Your task to perform on an android device: toggle wifi Image 0: 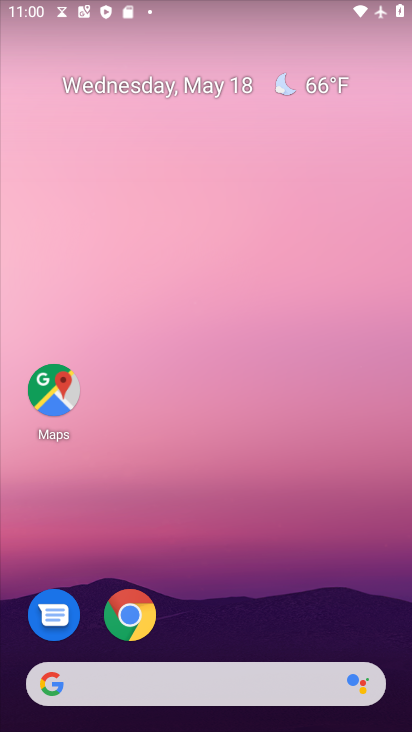
Step 0: drag from (268, 557) to (239, 16)
Your task to perform on an android device: toggle wifi Image 1: 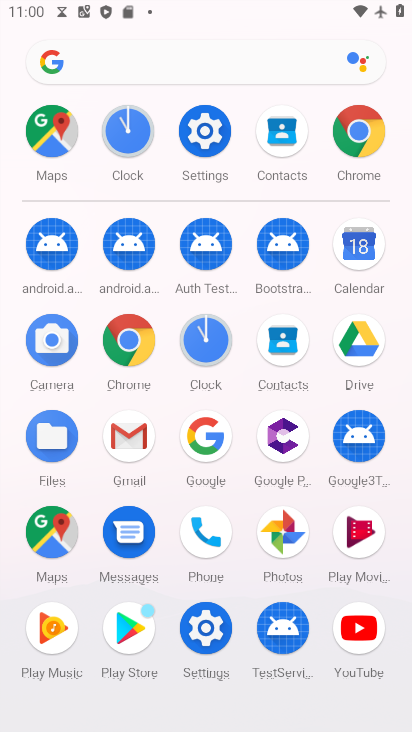
Step 1: click (204, 624)
Your task to perform on an android device: toggle wifi Image 2: 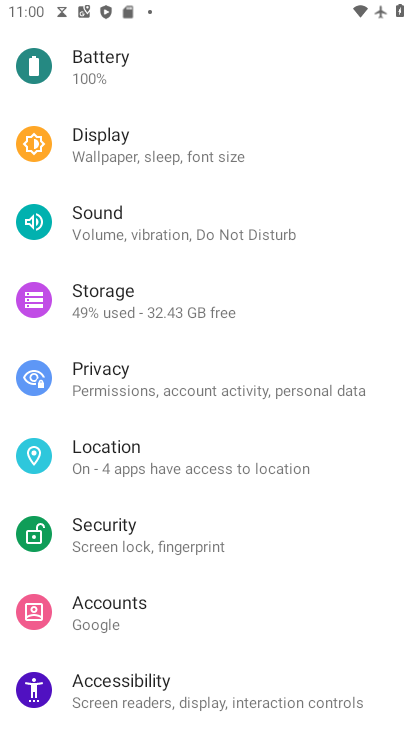
Step 2: drag from (275, 111) to (275, 587)
Your task to perform on an android device: toggle wifi Image 3: 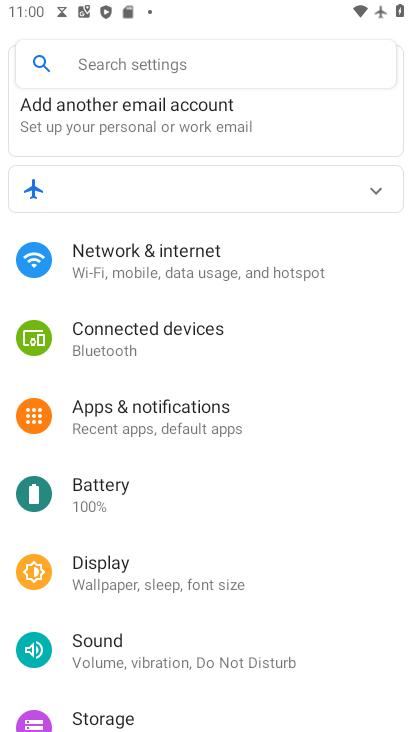
Step 3: click (122, 242)
Your task to perform on an android device: toggle wifi Image 4: 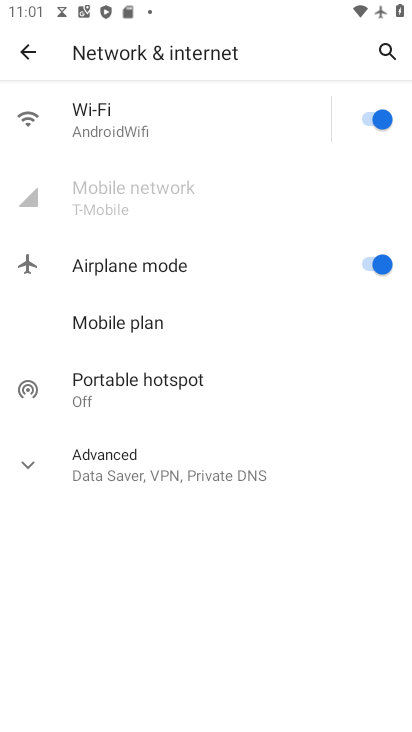
Step 4: click (357, 125)
Your task to perform on an android device: toggle wifi Image 5: 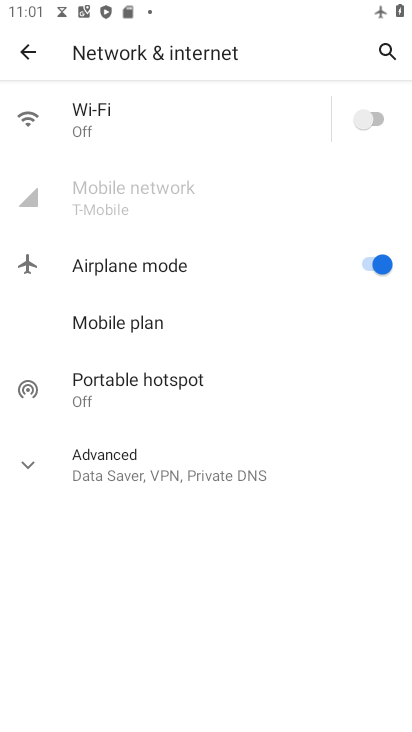
Step 5: task complete